Your task to perform on an android device: toggle show notifications on the lock screen Image 0: 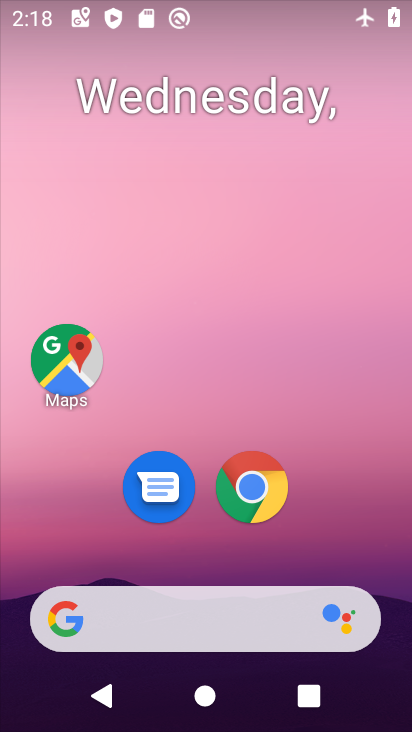
Step 0: drag from (343, 520) to (353, 3)
Your task to perform on an android device: toggle show notifications on the lock screen Image 1: 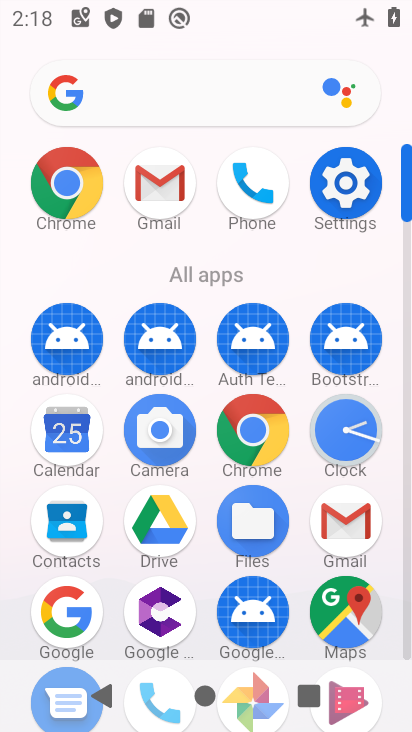
Step 1: click (366, 184)
Your task to perform on an android device: toggle show notifications on the lock screen Image 2: 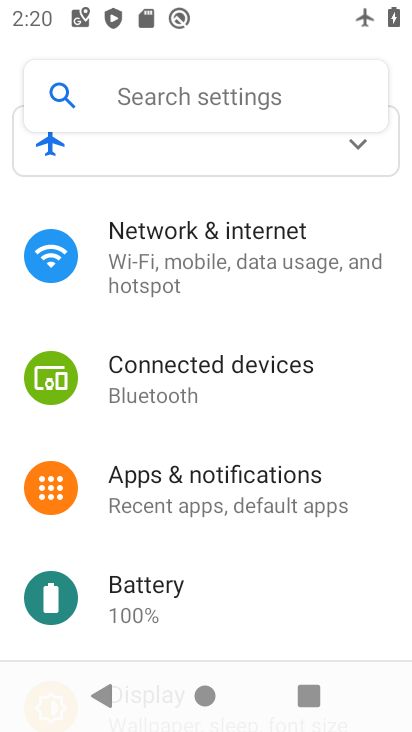
Step 2: drag from (114, 289) to (177, 29)
Your task to perform on an android device: toggle show notifications on the lock screen Image 3: 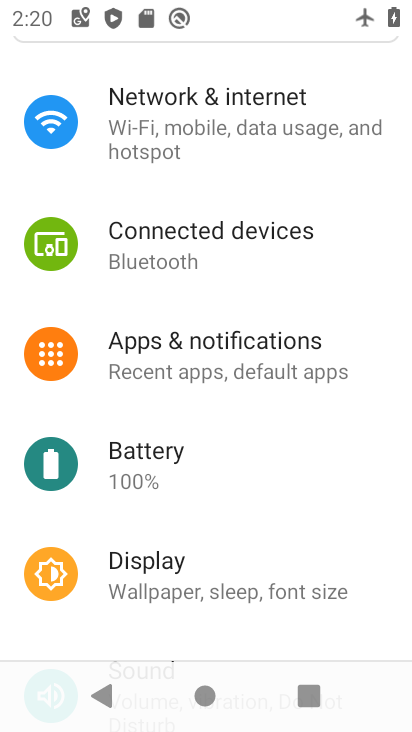
Step 3: click (275, 374)
Your task to perform on an android device: toggle show notifications on the lock screen Image 4: 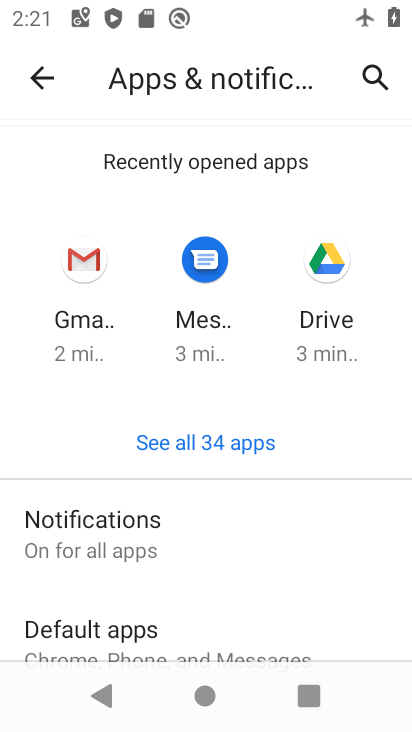
Step 4: drag from (271, 610) to (236, 240)
Your task to perform on an android device: toggle show notifications on the lock screen Image 5: 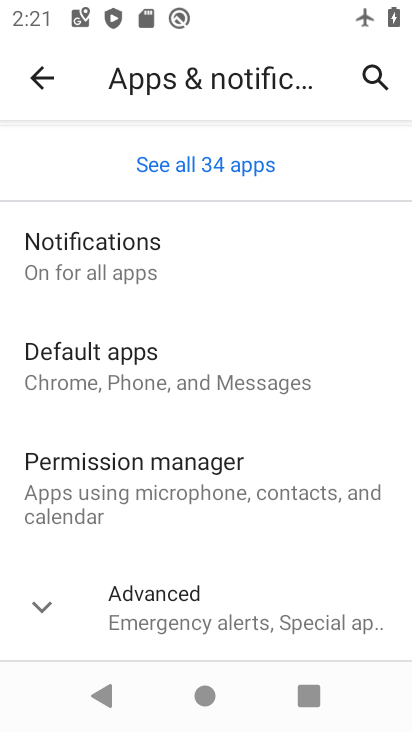
Step 5: click (92, 270)
Your task to perform on an android device: toggle show notifications on the lock screen Image 6: 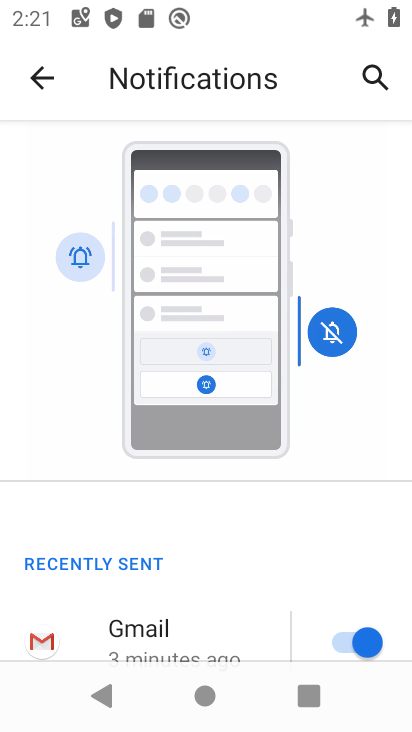
Step 6: drag from (164, 593) to (246, 133)
Your task to perform on an android device: toggle show notifications on the lock screen Image 7: 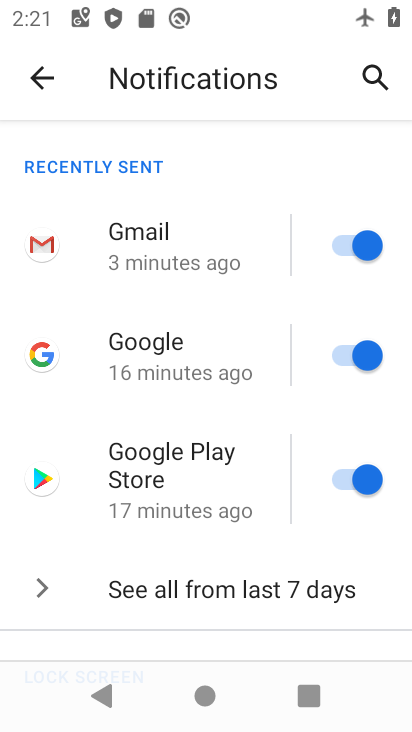
Step 7: drag from (150, 563) to (225, 175)
Your task to perform on an android device: toggle show notifications on the lock screen Image 8: 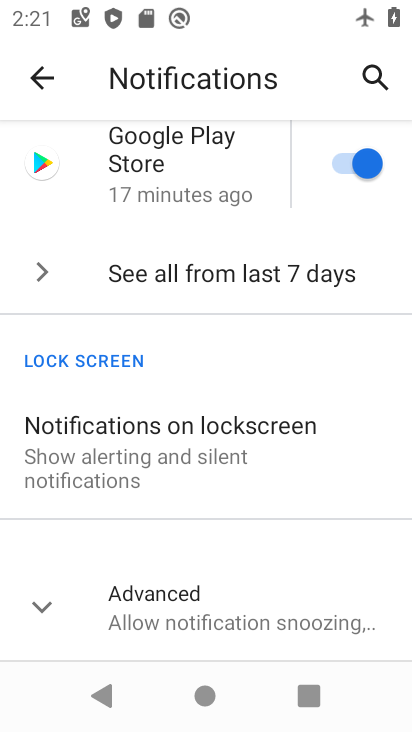
Step 8: click (117, 447)
Your task to perform on an android device: toggle show notifications on the lock screen Image 9: 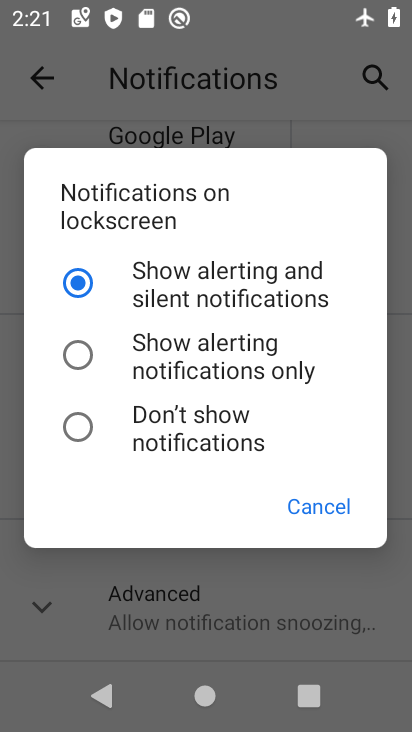
Step 9: click (144, 372)
Your task to perform on an android device: toggle show notifications on the lock screen Image 10: 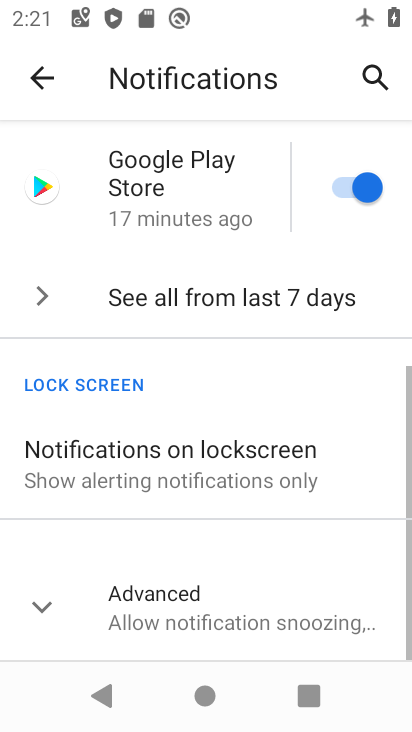
Step 10: task complete